Your task to perform on an android device: Go to settings Image 0: 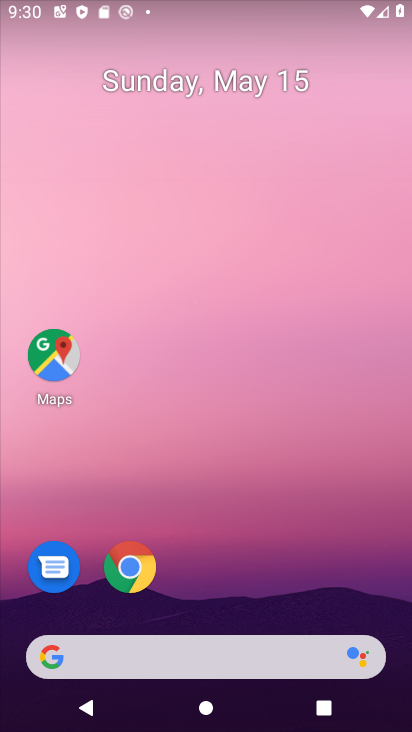
Step 0: drag from (312, 597) to (294, 89)
Your task to perform on an android device: Go to settings Image 1: 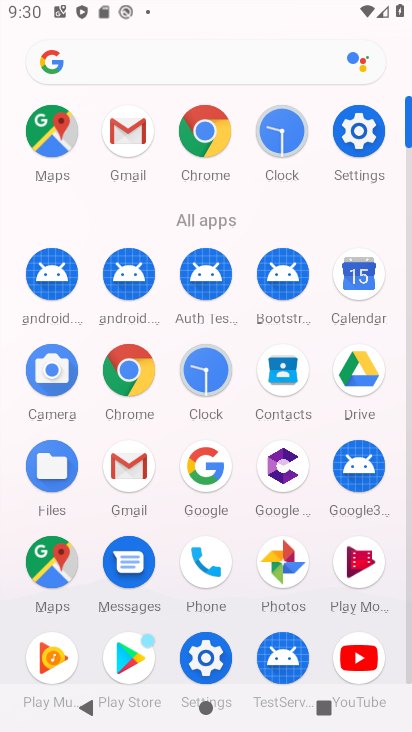
Step 1: click (356, 157)
Your task to perform on an android device: Go to settings Image 2: 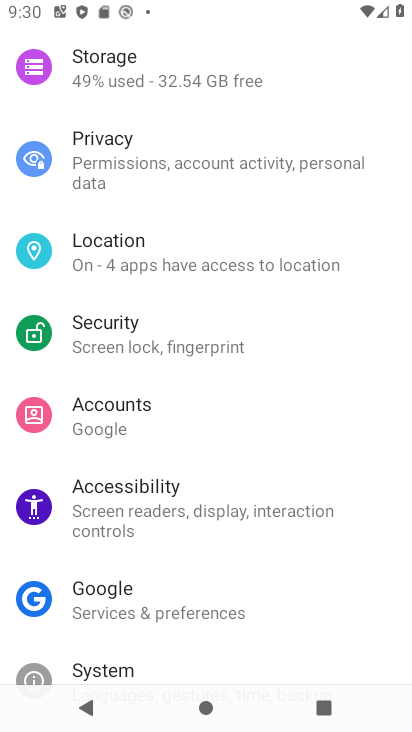
Step 2: task complete